Your task to perform on an android device: Do I have any events this weekend? Image 0: 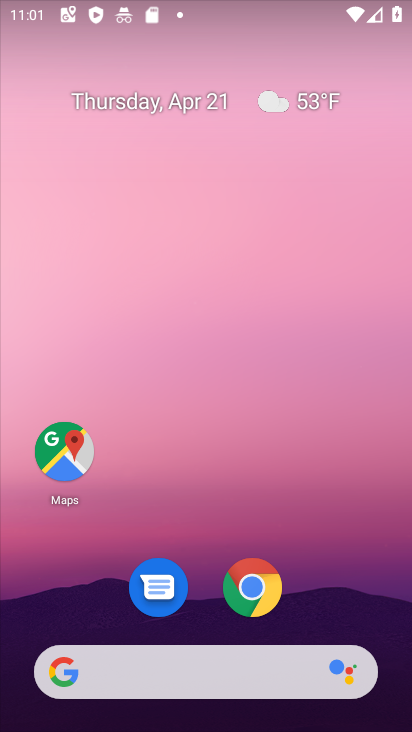
Step 0: drag from (181, 672) to (158, 166)
Your task to perform on an android device: Do I have any events this weekend? Image 1: 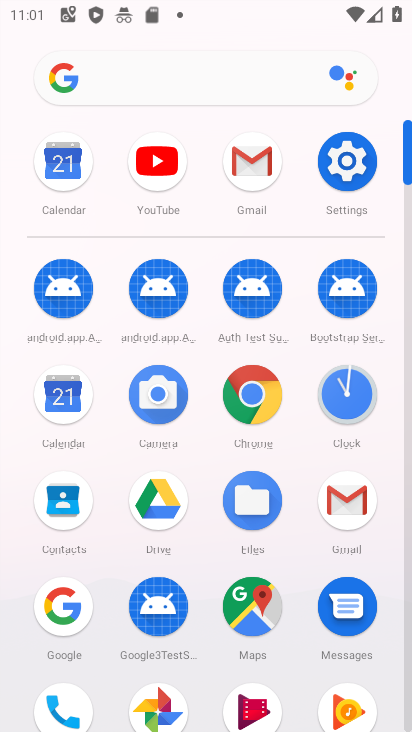
Step 1: click (60, 388)
Your task to perform on an android device: Do I have any events this weekend? Image 2: 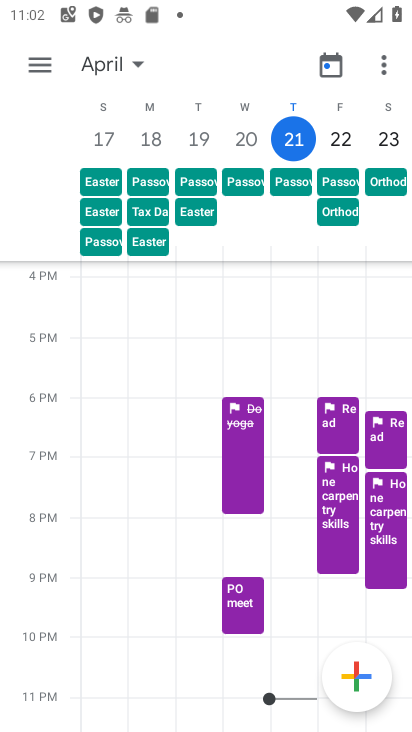
Step 2: task complete